Your task to perform on an android device: change the clock display to analog Image 0: 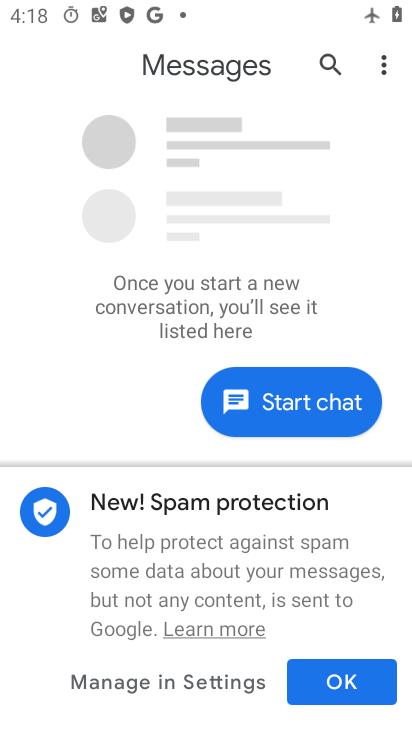
Step 0: press home button
Your task to perform on an android device: change the clock display to analog Image 1: 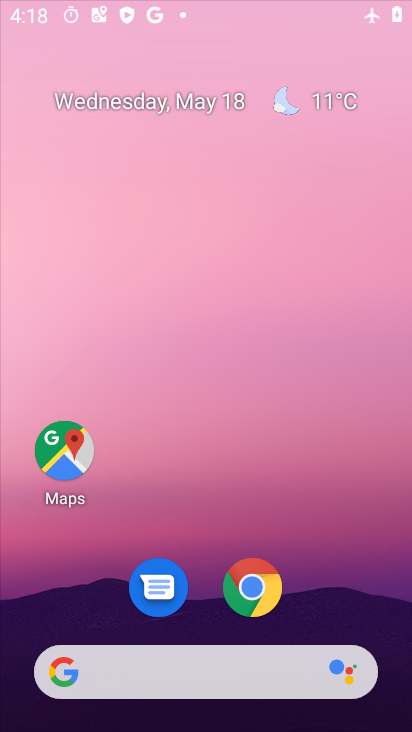
Step 1: drag from (191, 575) to (233, 85)
Your task to perform on an android device: change the clock display to analog Image 2: 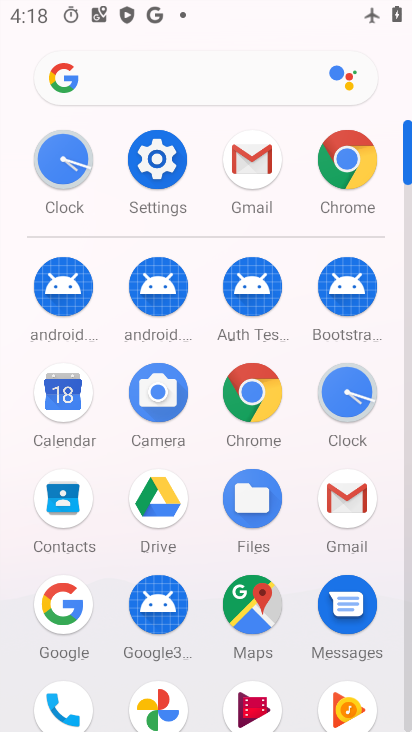
Step 2: click (70, 191)
Your task to perform on an android device: change the clock display to analog Image 3: 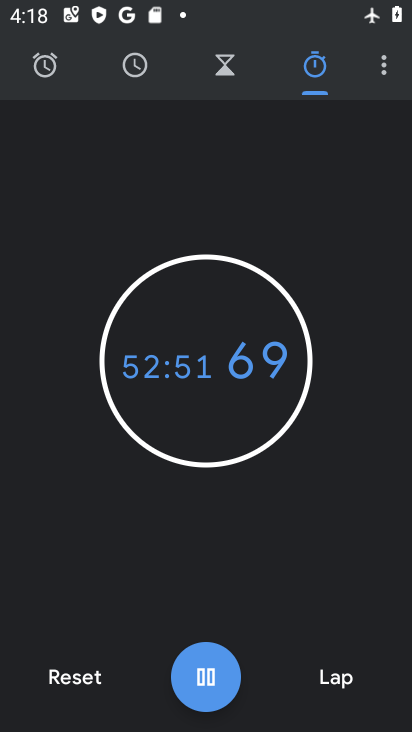
Step 3: click (384, 77)
Your task to perform on an android device: change the clock display to analog Image 4: 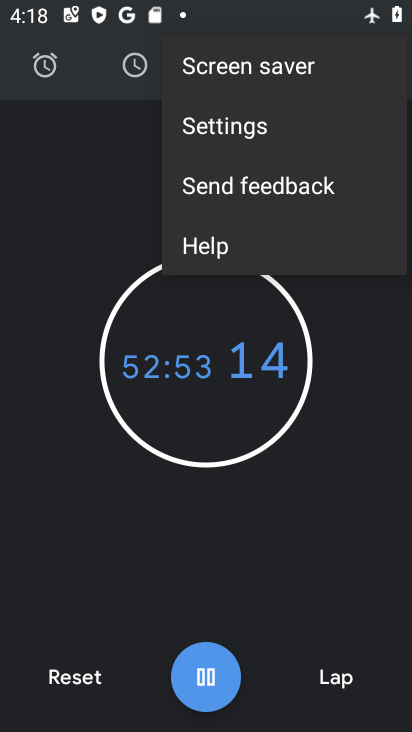
Step 4: click (224, 117)
Your task to perform on an android device: change the clock display to analog Image 5: 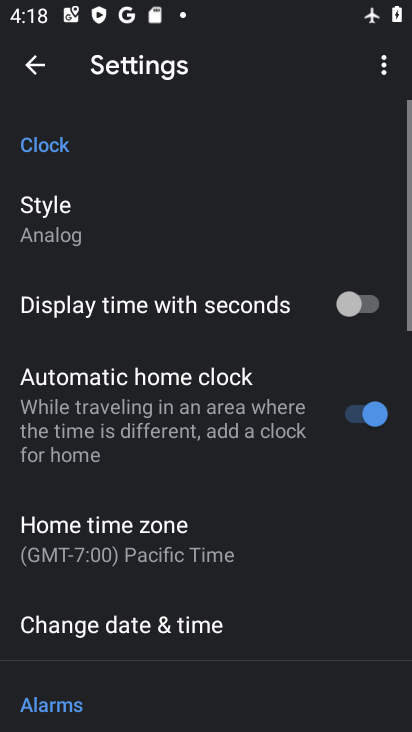
Step 5: task complete